Your task to perform on an android device: turn pop-ups on in chrome Image 0: 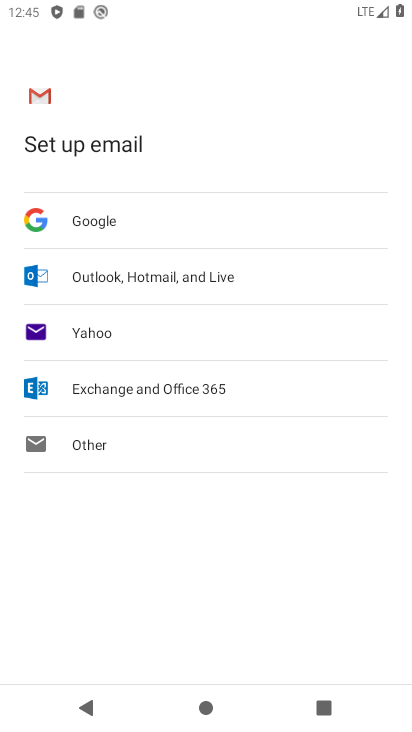
Step 0: press home button
Your task to perform on an android device: turn pop-ups on in chrome Image 1: 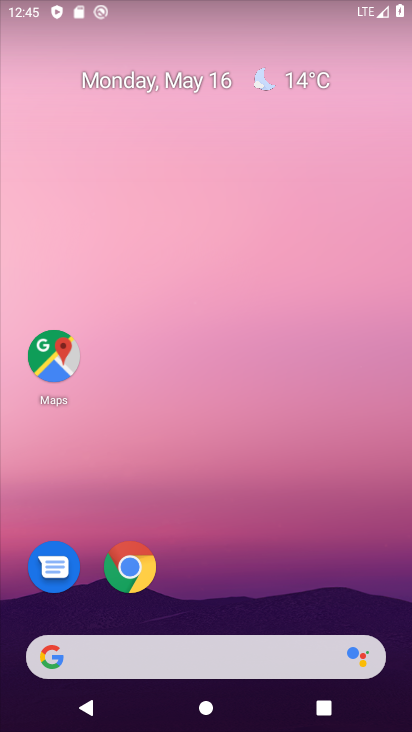
Step 1: click (129, 571)
Your task to perform on an android device: turn pop-ups on in chrome Image 2: 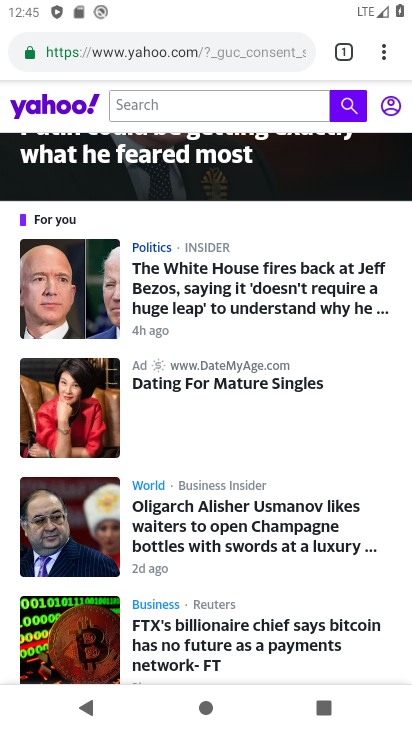
Step 2: click (383, 51)
Your task to perform on an android device: turn pop-ups on in chrome Image 3: 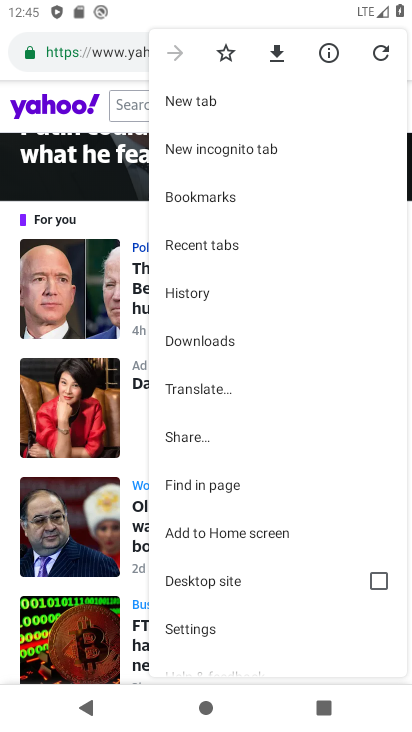
Step 3: click (203, 630)
Your task to perform on an android device: turn pop-ups on in chrome Image 4: 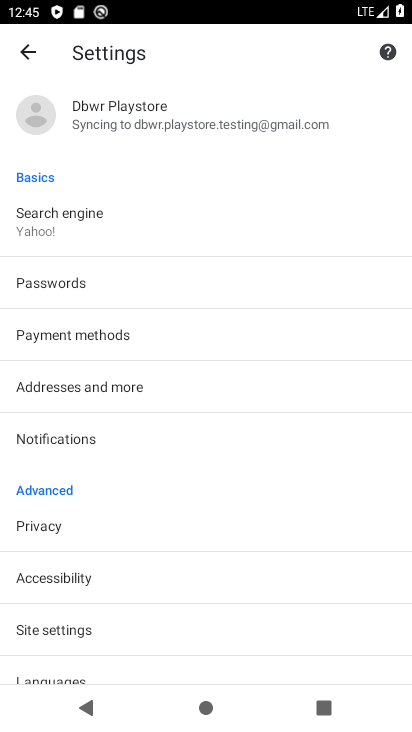
Step 4: drag from (167, 515) to (109, 177)
Your task to perform on an android device: turn pop-ups on in chrome Image 5: 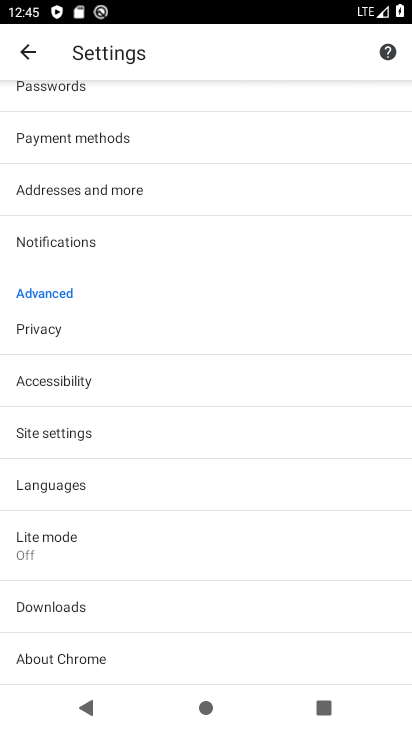
Step 5: click (61, 428)
Your task to perform on an android device: turn pop-ups on in chrome Image 6: 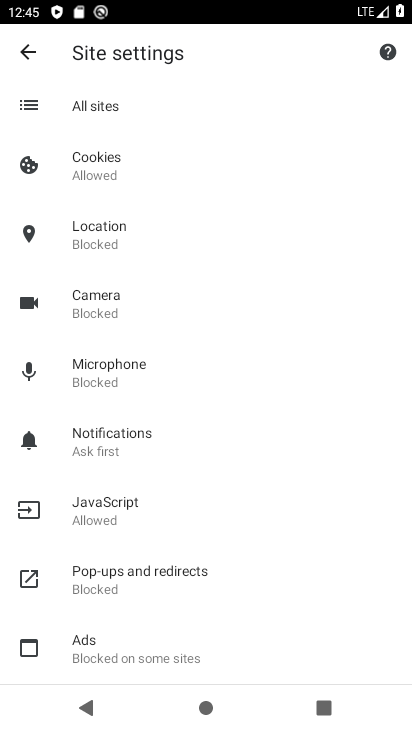
Step 6: click (109, 570)
Your task to perform on an android device: turn pop-ups on in chrome Image 7: 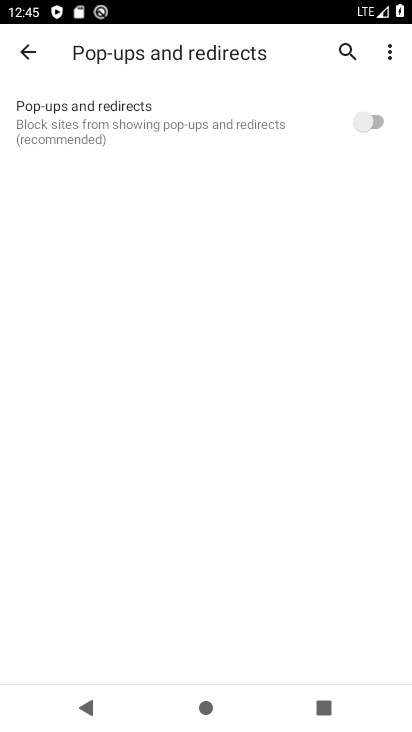
Step 7: click (359, 115)
Your task to perform on an android device: turn pop-ups on in chrome Image 8: 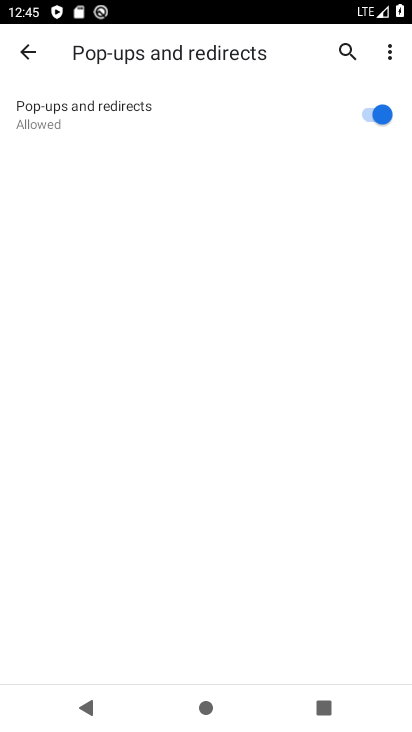
Step 8: task complete